Your task to perform on an android device: turn on location history Image 0: 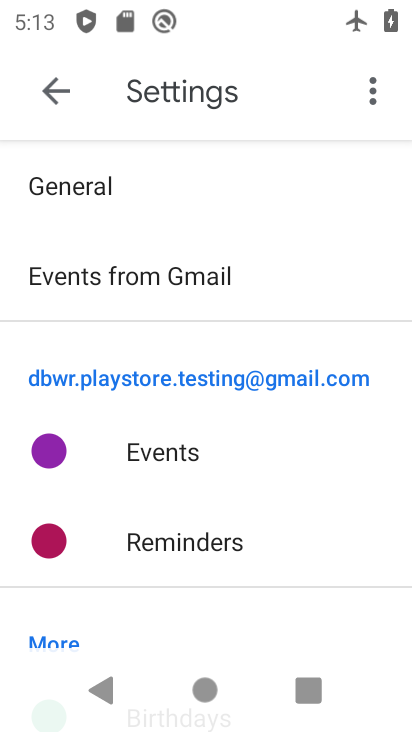
Step 0: press home button
Your task to perform on an android device: turn on location history Image 1: 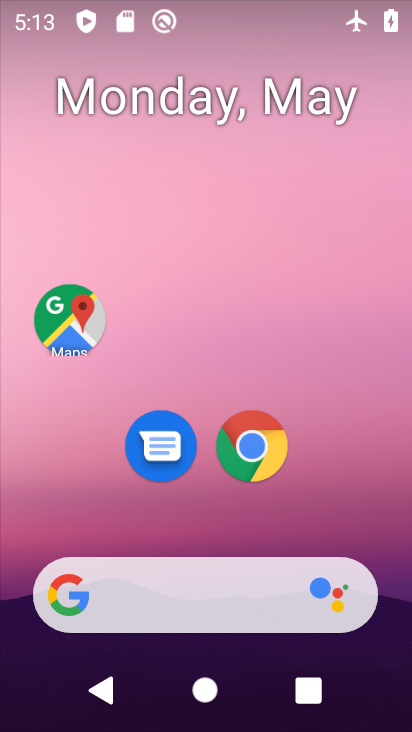
Step 1: click (66, 325)
Your task to perform on an android device: turn on location history Image 2: 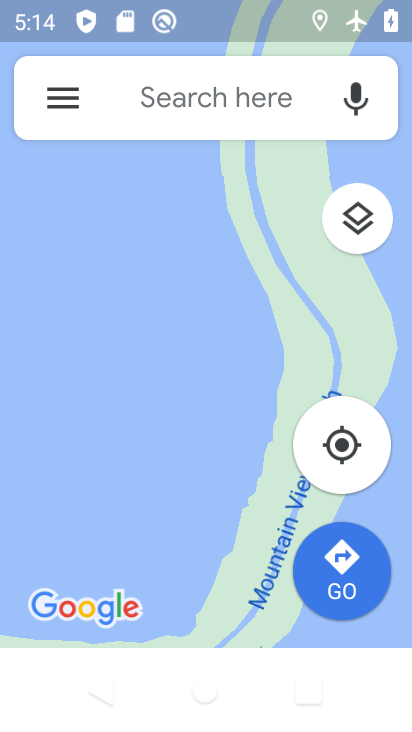
Step 2: click (36, 97)
Your task to perform on an android device: turn on location history Image 3: 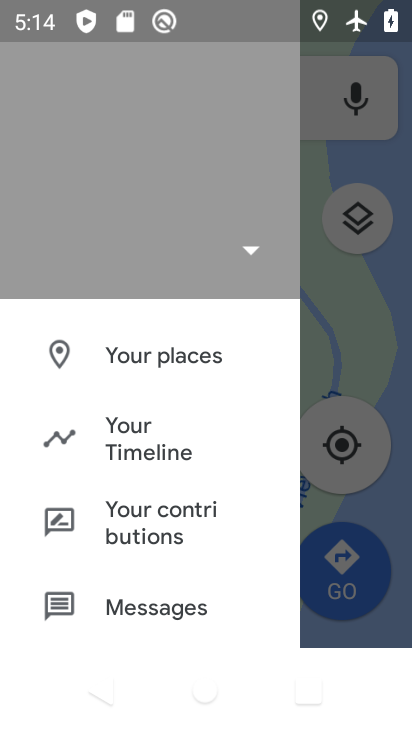
Step 3: click (155, 421)
Your task to perform on an android device: turn on location history Image 4: 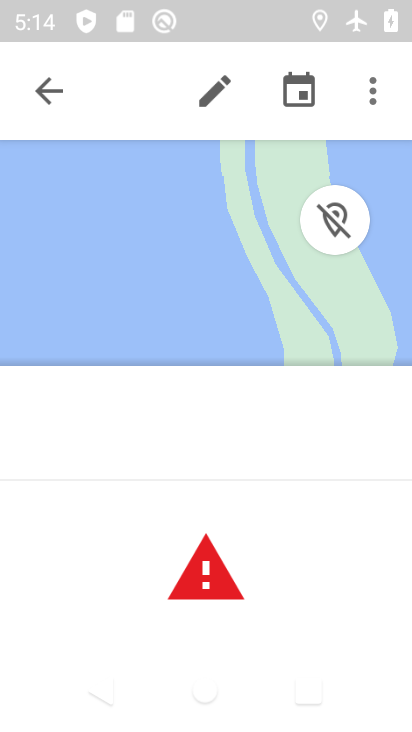
Step 4: click (374, 91)
Your task to perform on an android device: turn on location history Image 5: 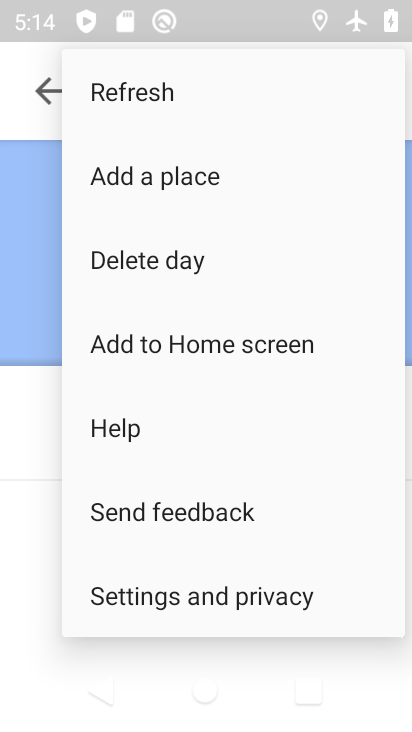
Step 5: click (223, 601)
Your task to perform on an android device: turn on location history Image 6: 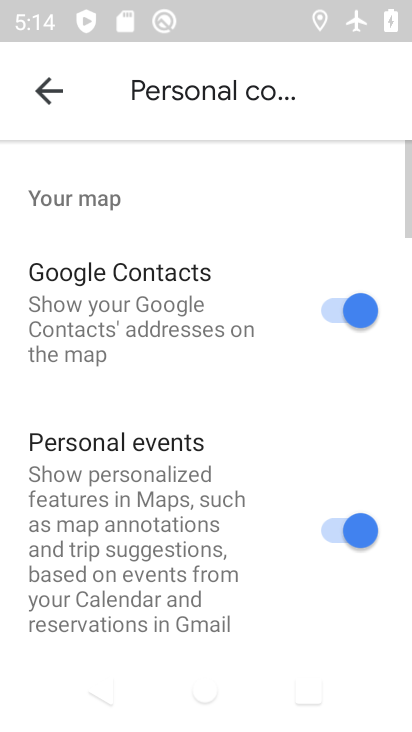
Step 6: drag from (287, 566) to (234, 247)
Your task to perform on an android device: turn on location history Image 7: 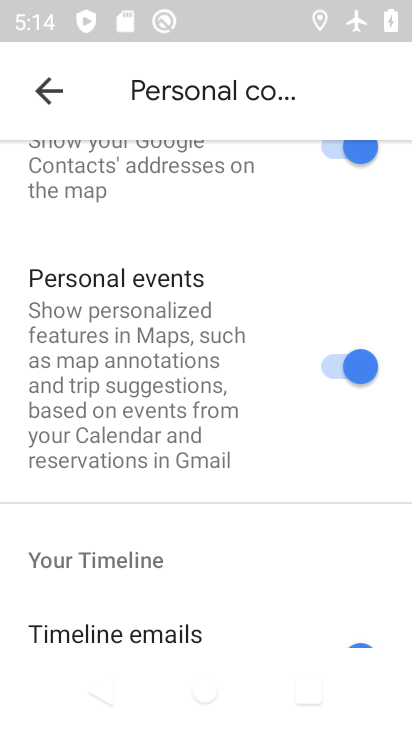
Step 7: drag from (233, 509) to (172, 217)
Your task to perform on an android device: turn on location history Image 8: 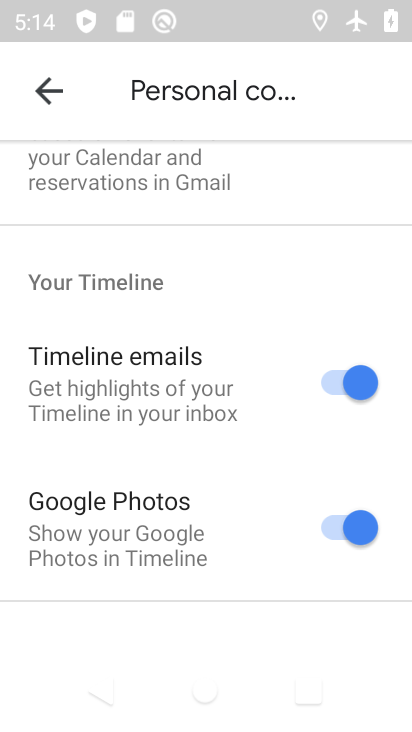
Step 8: drag from (182, 440) to (126, 145)
Your task to perform on an android device: turn on location history Image 9: 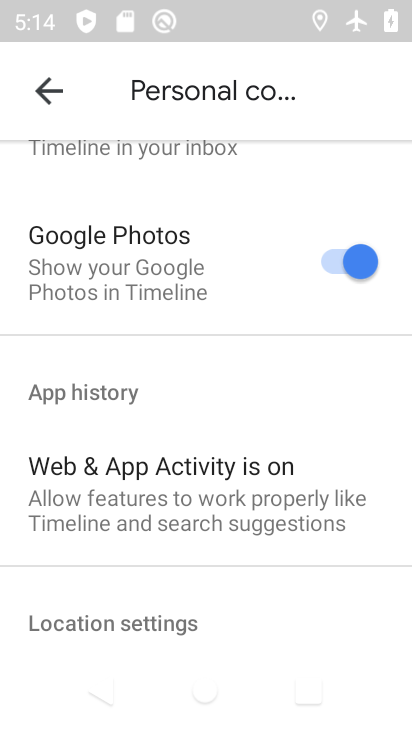
Step 9: drag from (298, 530) to (236, 259)
Your task to perform on an android device: turn on location history Image 10: 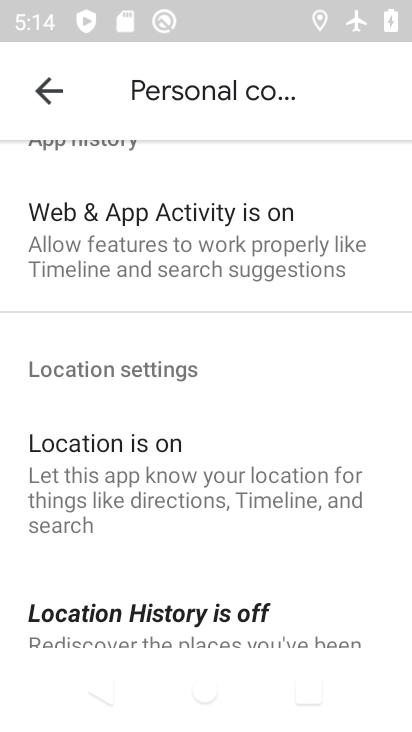
Step 10: drag from (216, 531) to (155, 294)
Your task to perform on an android device: turn on location history Image 11: 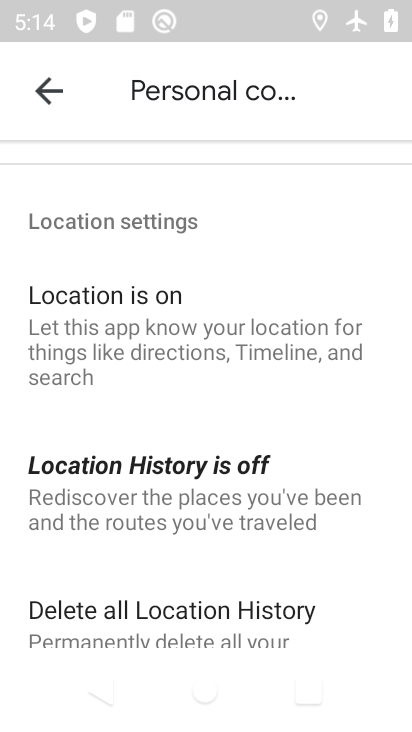
Step 11: click (159, 480)
Your task to perform on an android device: turn on location history Image 12: 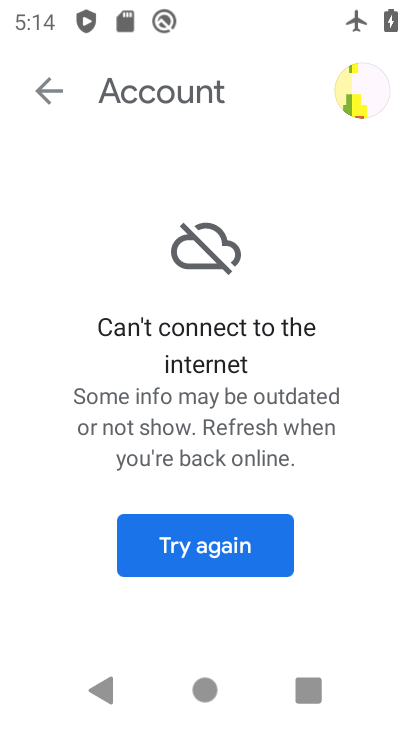
Step 12: task complete